Your task to perform on an android device: Open battery settings Image 0: 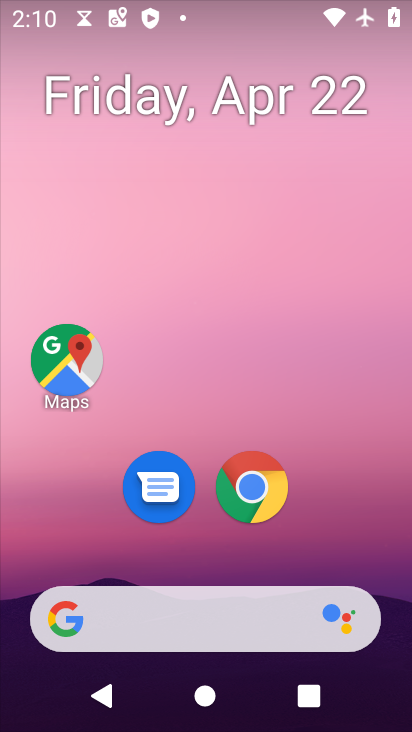
Step 0: drag from (192, 526) to (262, 223)
Your task to perform on an android device: Open battery settings Image 1: 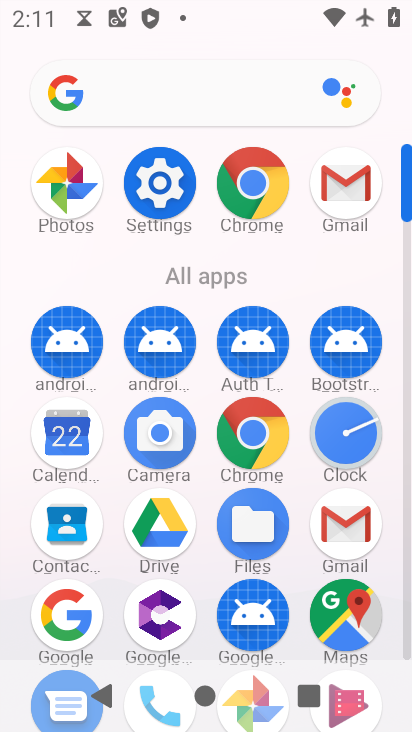
Step 1: click (162, 192)
Your task to perform on an android device: Open battery settings Image 2: 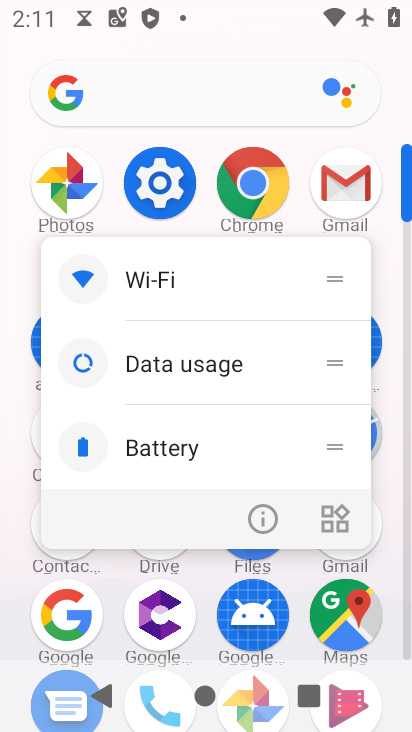
Step 2: click (160, 200)
Your task to perform on an android device: Open battery settings Image 3: 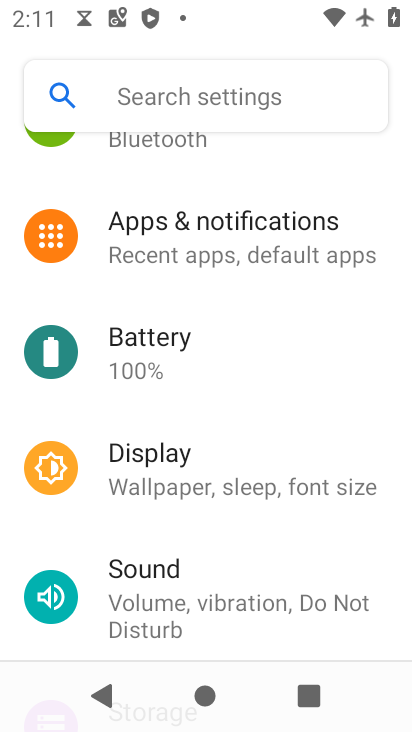
Step 3: click (155, 335)
Your task to perform on an android device: Open battery settings Image 4: 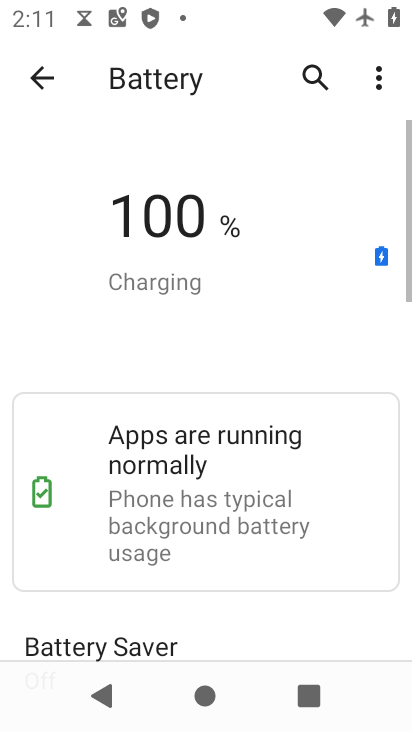
Step 4: task complete